Your task to perform on an android device: check google app version Image 0: 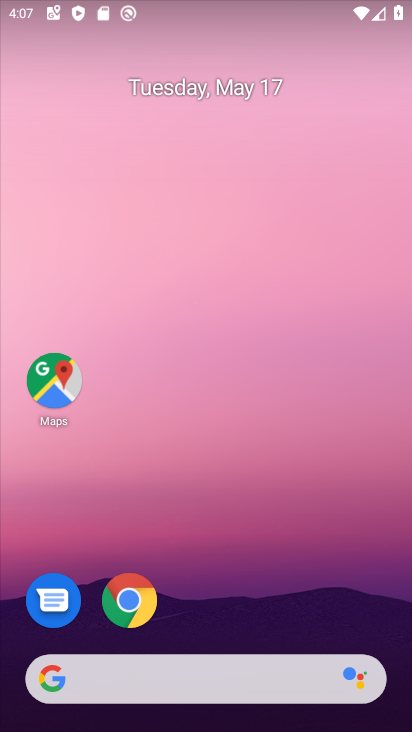
Step 0: click (205, 683)
Your task to perform on an android device: check google app version Image 1: 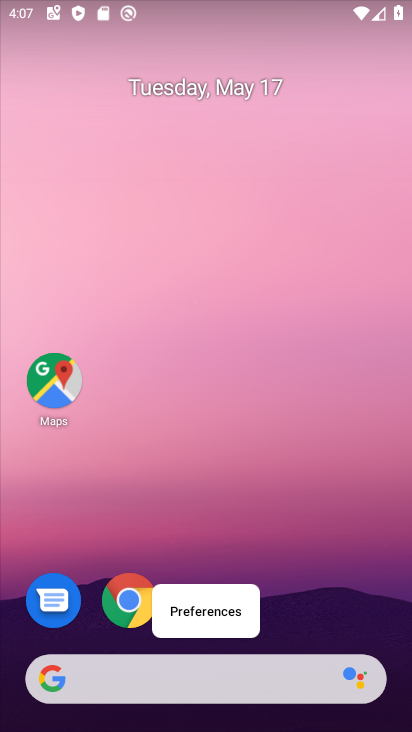
Step 1: click (222, 674)
Your task to perform on an android device: check google app version Image 2: 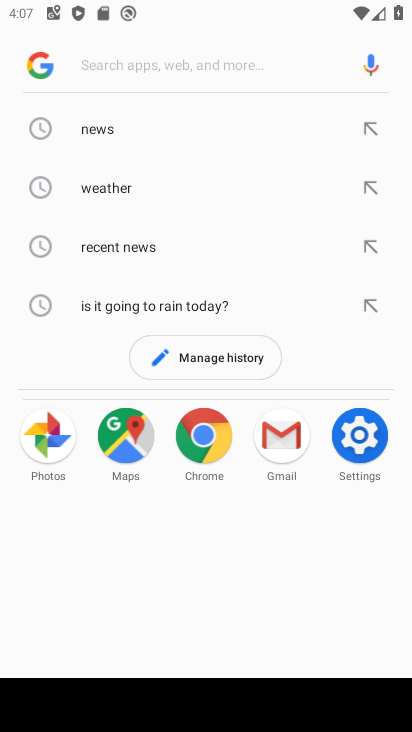
Step 2: click (39, 77)
Your task to perform on an android device: check google app version Image 3: 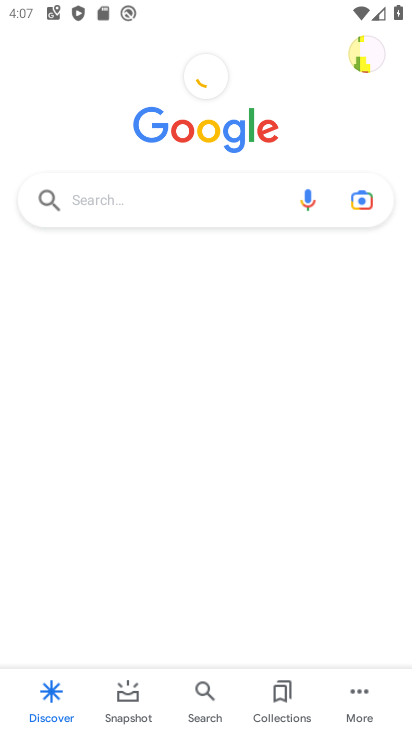
Step 3: click (352, 694)
Your task to perform on an android device: check google app version Image 4: 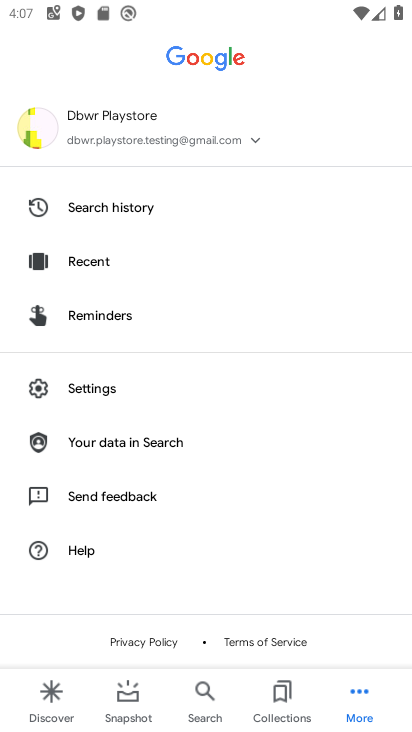
Step 4: click (82, 388)
Your task to perform on an android device: check google app version Image 5: 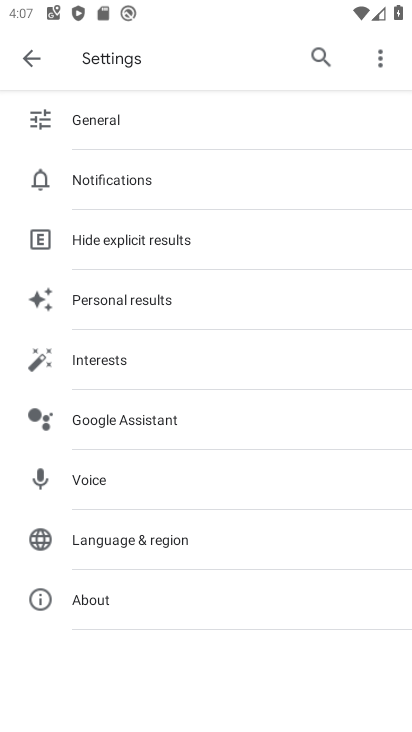
Step 5: click (118, 604)
Your task to perform on an android device: check google app version Image 6: 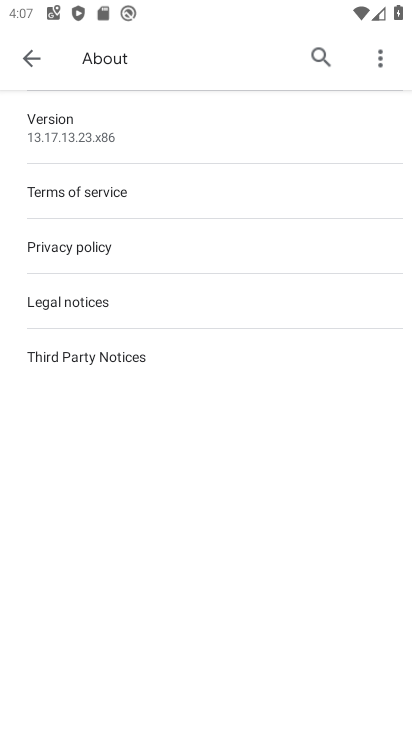
Step 6: task complete